Your task to perform on an android device: Search for vegetarian restaurants on Maps Image 0: 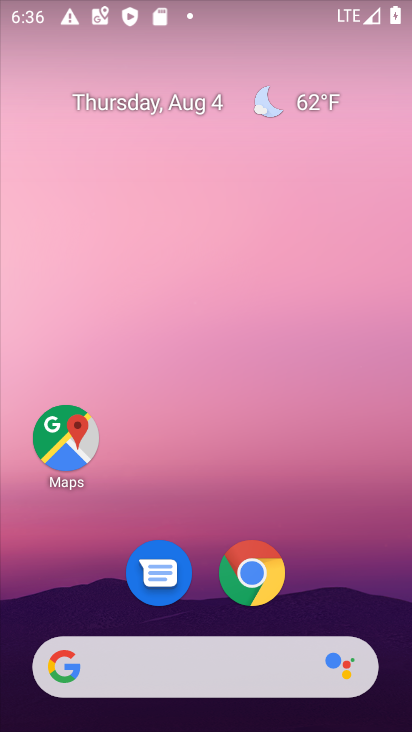
Step 0: press home button
Your task to perform on an android device: Search for vegetarian restaurants on Maps Image 1: 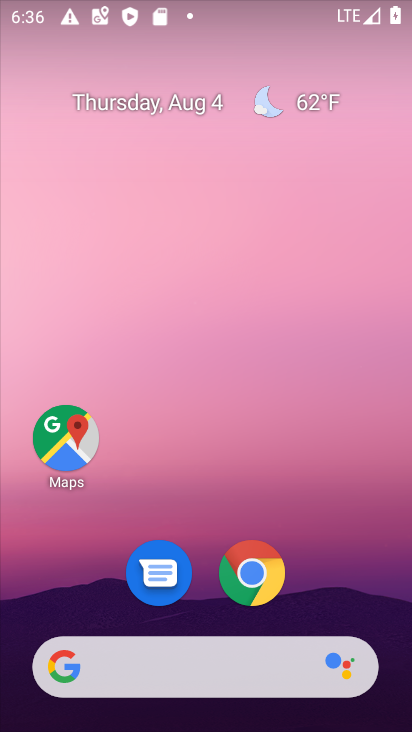
Step 1: click (68, 448)
Your task to perform on an android device: Search for vegetarian restaurants on Maps Image 2: 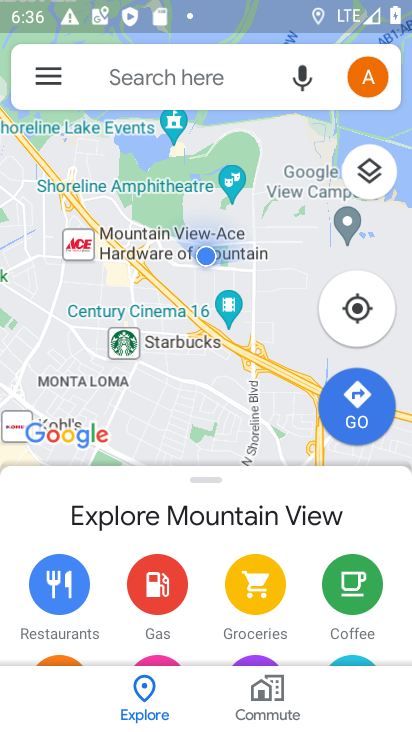
Step 2: click (125, 88)
Your task to perform on an android device: Search for vegetarian restaurants on Maps Image 3: 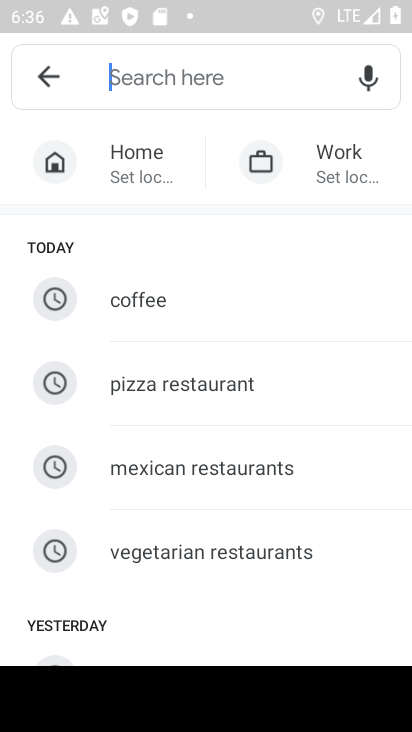
Step 3: click (216, 557)
Your task to perform on an android device: Search for vegetarian restaurants on Maps Image 4: 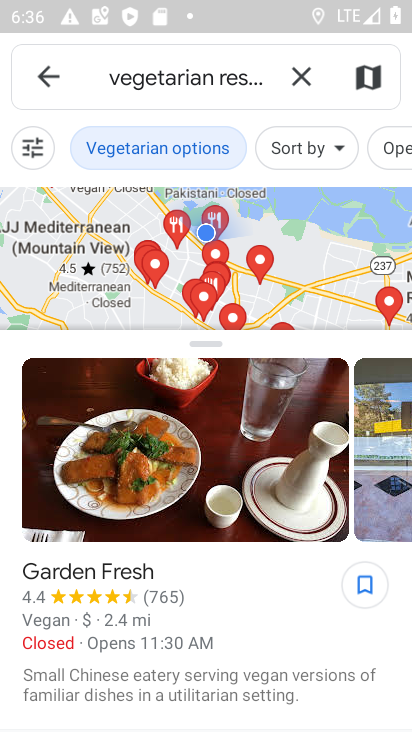
Step 4: task complete